Your task to perform on an android device: Go to Google Image 0: 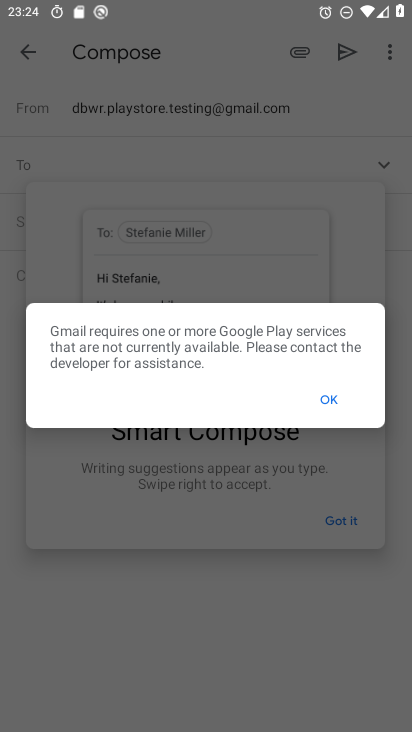
Step 0: press home button
Your task to perform on an android device: Go to Google Image 1: 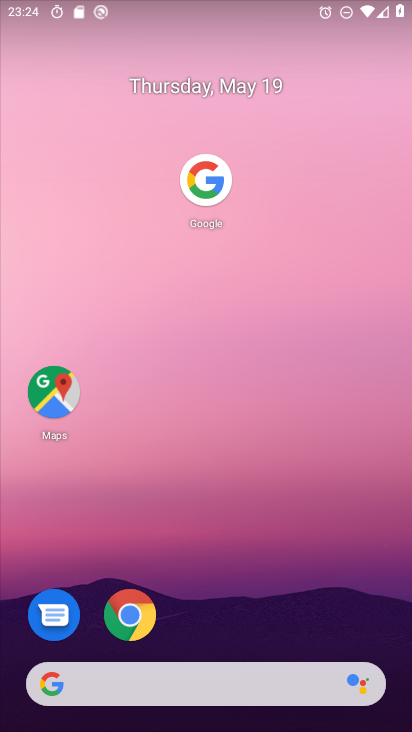
Step 1: click (212, 174)
Your task to perform on an android device: Go to Google Image 2: 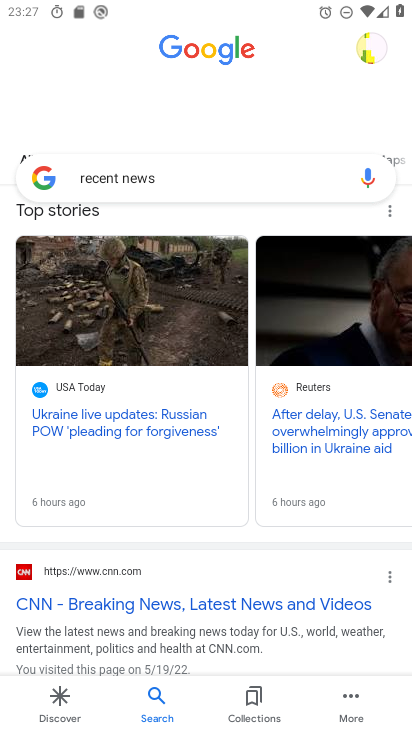
Step 2: task complete